Your task to perform on an android device: see sites visited before in the chrome app Image 0: 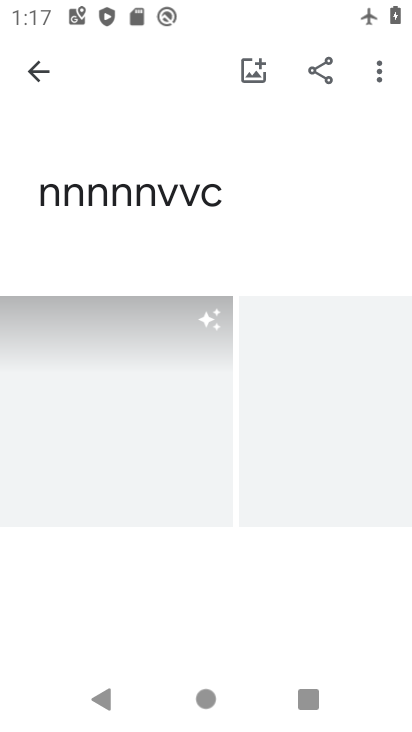
Step 0: press home button
Your task to perform on an android device: see sites visited before in the chrome app Image 1: 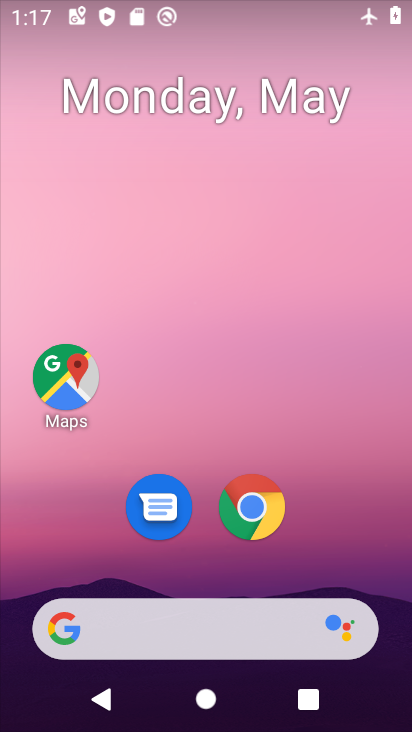
Step 1: click (257, 499)
Your task to perform on an android device: see sites visited before in the chrome app Image 2: 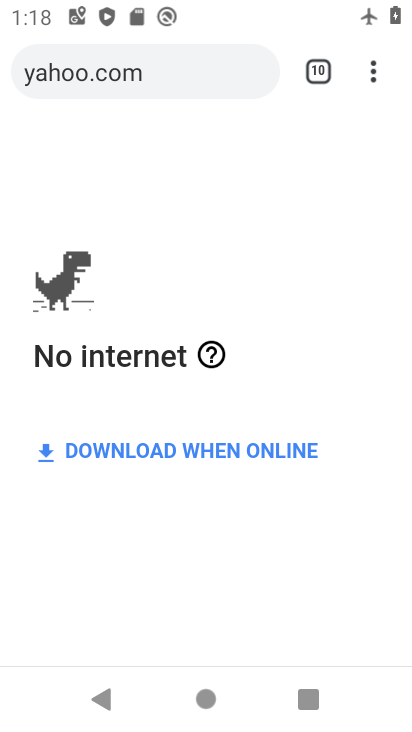
Step 2: click (374, 79)
Your task to perform on an android device: see sites visited before in the chrome app Image 3: 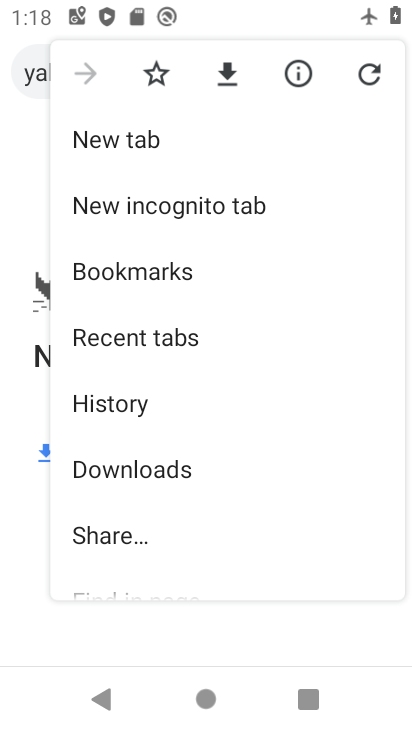
Step 3: drag from (120, 566) to (119, 181)
Your task to perform on an android device: see sites visited before in the chrome app Image 4: 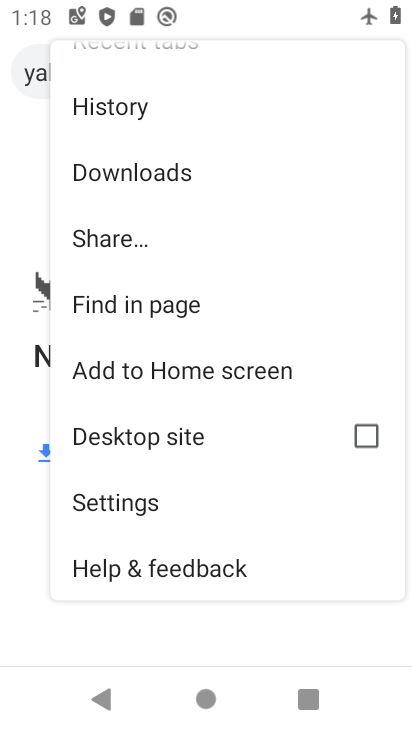
Step 4: click (115, 110)
Your task to perform on an android device: see sites visited before in the chrome app Image 5: 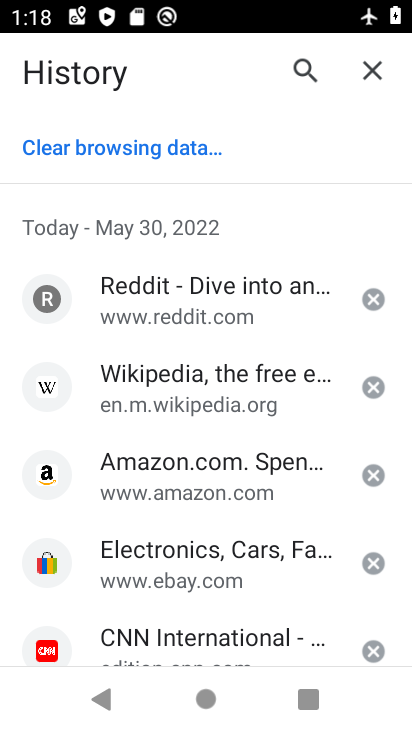
Step 5: task complete